Your task to perform on an android device: Go to sound settings Image 0: 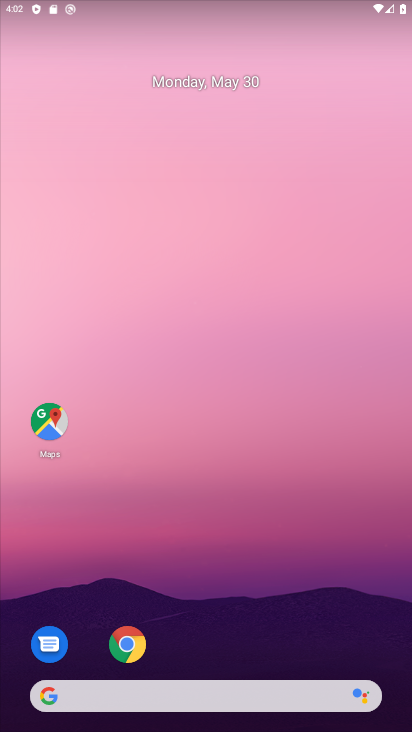
Step 0: drag from (204, 671) to (285, 63)
Your task to perform on an android device: Go to sound settings Image 1: 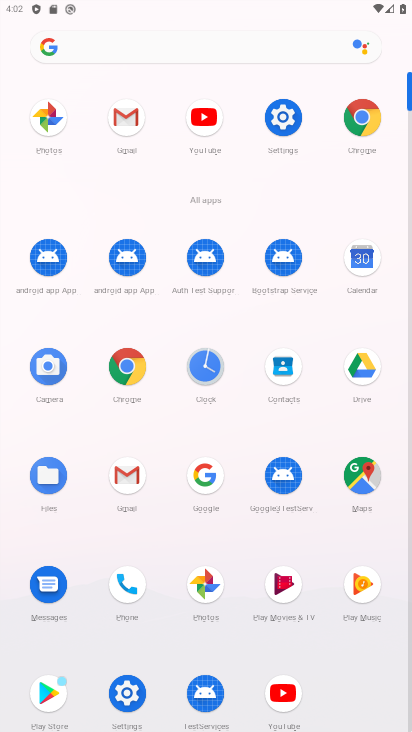
Step 1: click (276, 125)
Your task to perform on an android device: Go to sound settings Image 2: 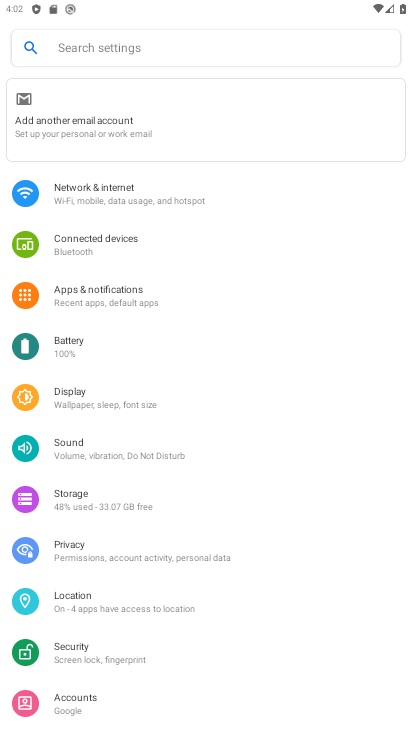
Step 2: click (83, 451)
Your task to perform on an android device: Go to sound settings Image 3: 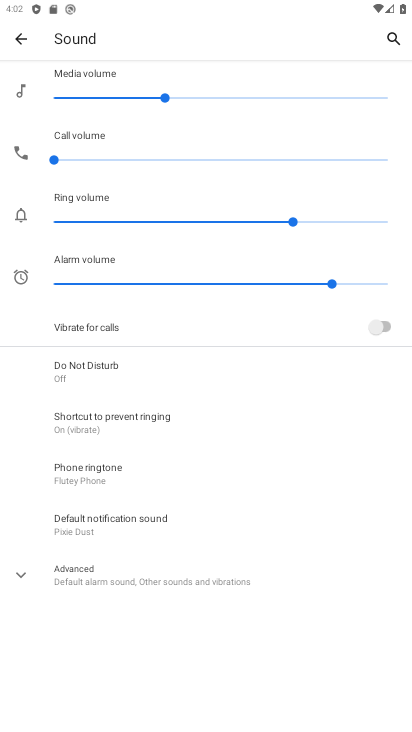
Step 3: task complete